Your task to perform on an android device: turn off location history Image 0: 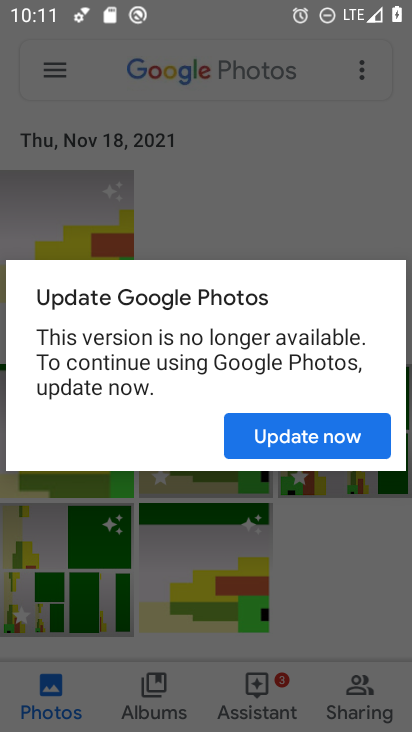
Step 0: press home button
Your task to perform on an android device: turn off location history Image 1: 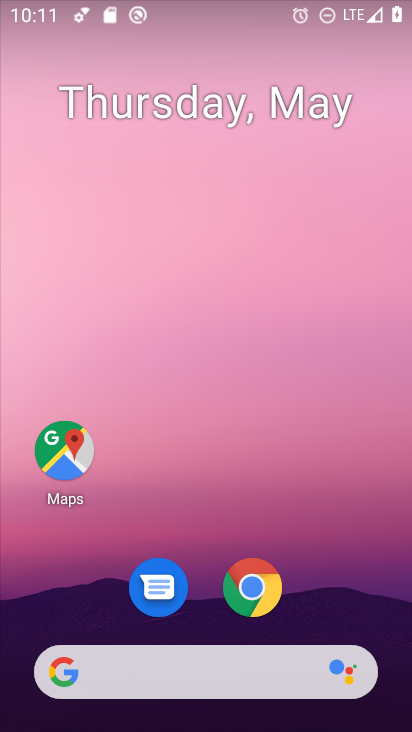
Step 1: click (62, 442)
Your task to perform on an android device: turn off location history Image 2: 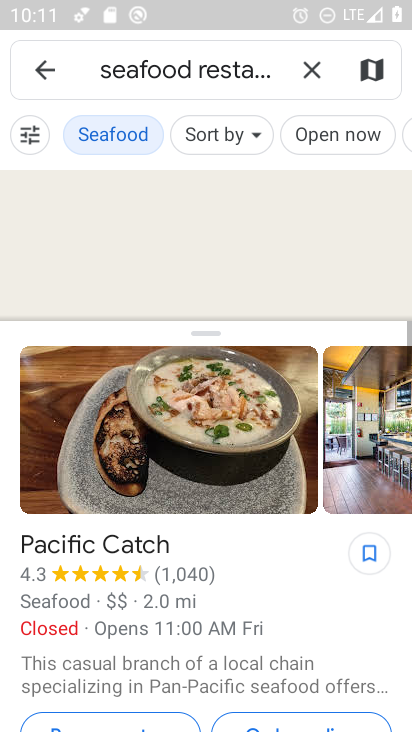
Step 2: click (309, 73)
Your task to perform on an android device: turn off location history Image 3: 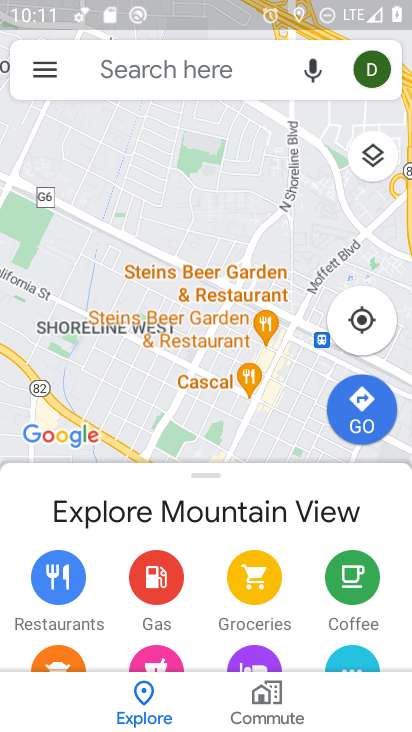
Step 3: click (40, 74)
Your task to perform on an android device: turn off location history Image 4: 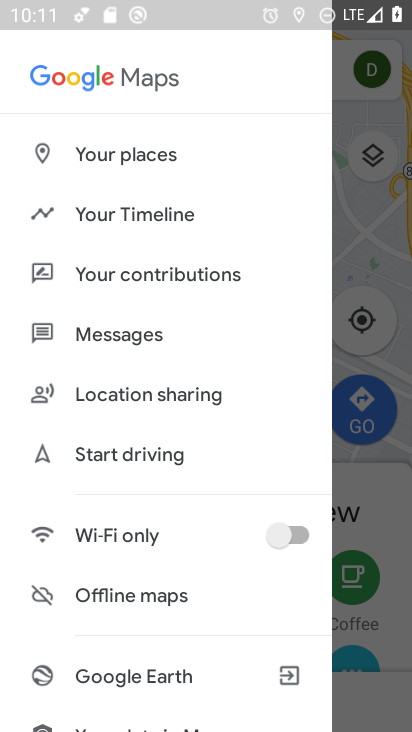
Step 4: click (121, 213)
Your task to perform on an android device: turn off location history Image 5: 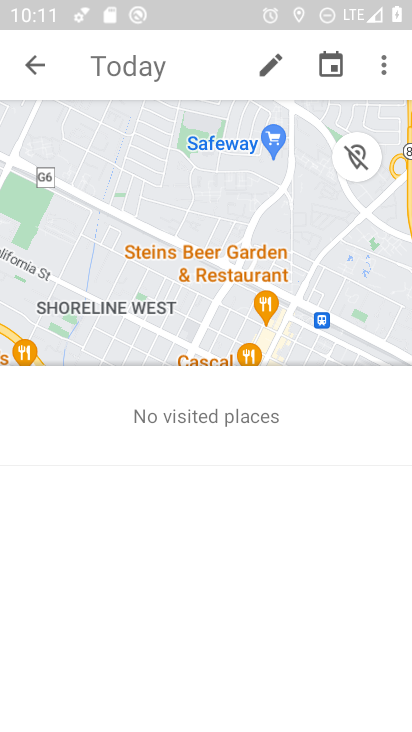
Step 5: click (384, 67)
Your task to perform on an android device: turn off location history Image 6: 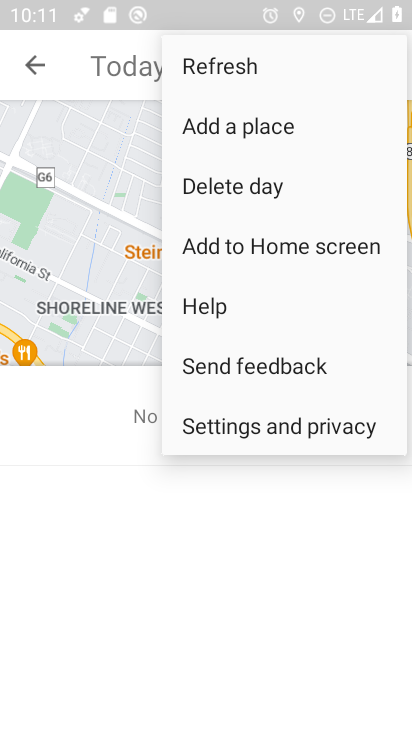
Step 6: click (241, 437)
Your task to perform on an android device: turn off location history Image 7: 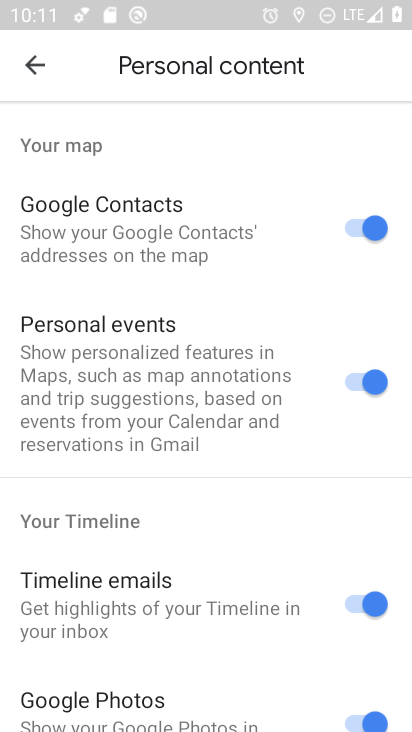
Step 7: drag from (187, 587) to (179, 111)
Your task to perform on an android device: turn off location history Image 8: 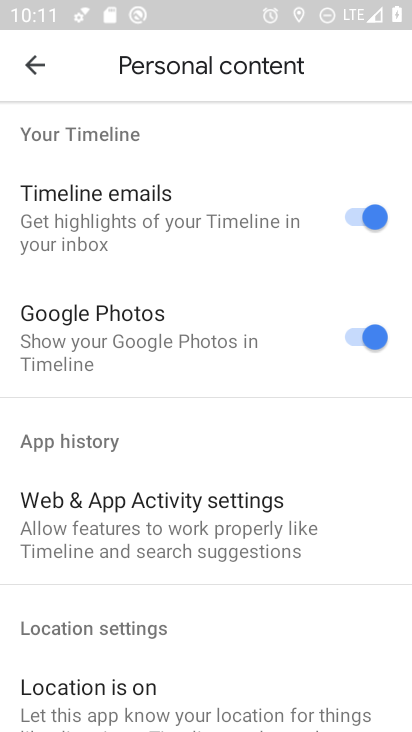
Step 8: drag from (133, 555) to (159, 64)
Your task to perform on an android device: turn off location history Image 9: 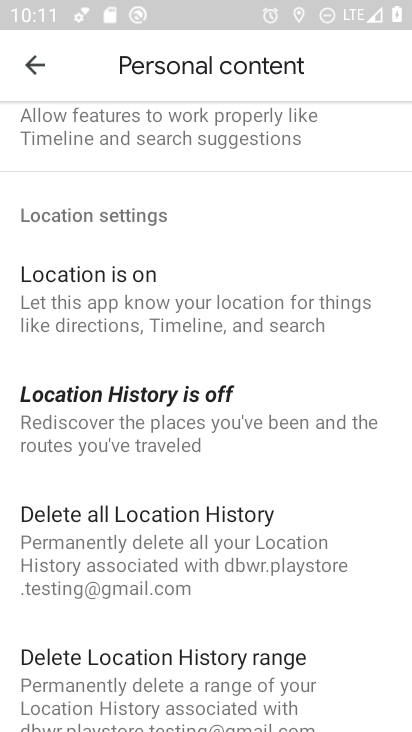
Step 9: click (116, 433)
Your task to perform on an android device: turn off location history Image 10: 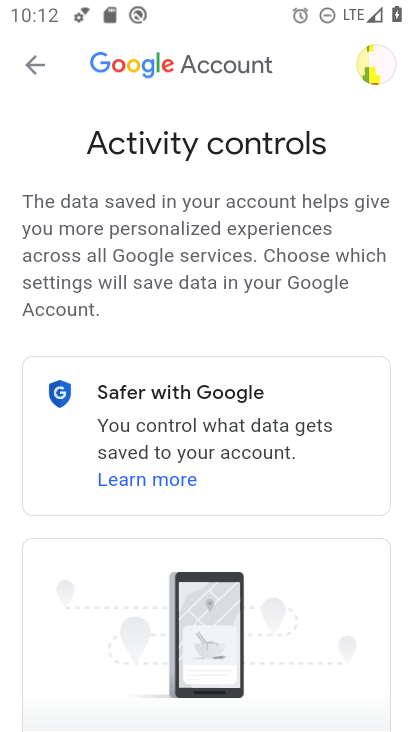
Step 10: task complete